Your task to perform on an android device: Do I have any events this weekend? Image 0: 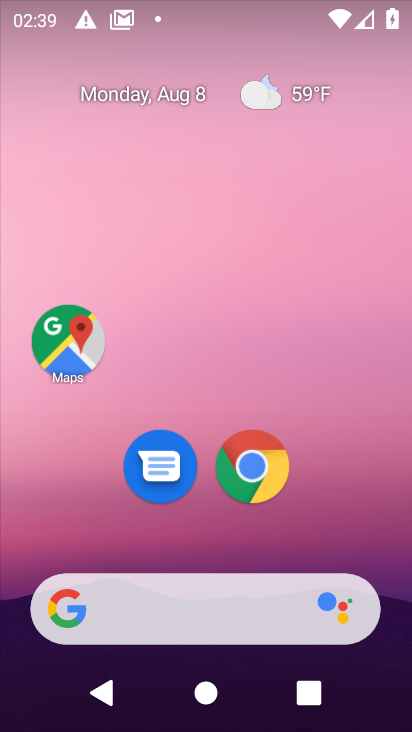
Step 0: drag from (223, 574) to (269, 157)
Your task to perform on an android device: Do I have any events this weekend? Image 1: 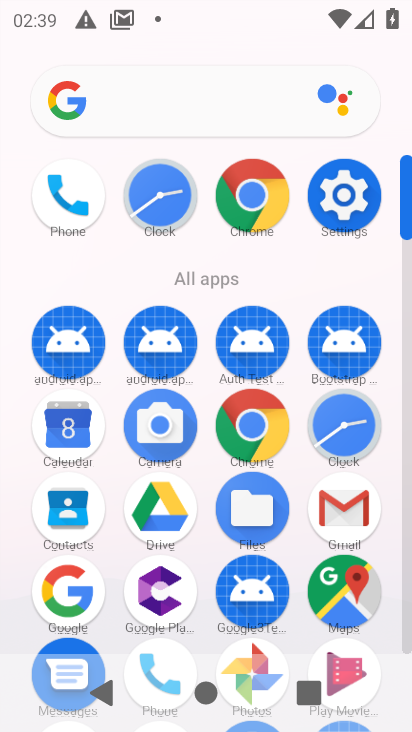
Step 1: click (57, 446)
Your task to perform on an android device: Do I have any events this weekend? Image 2: 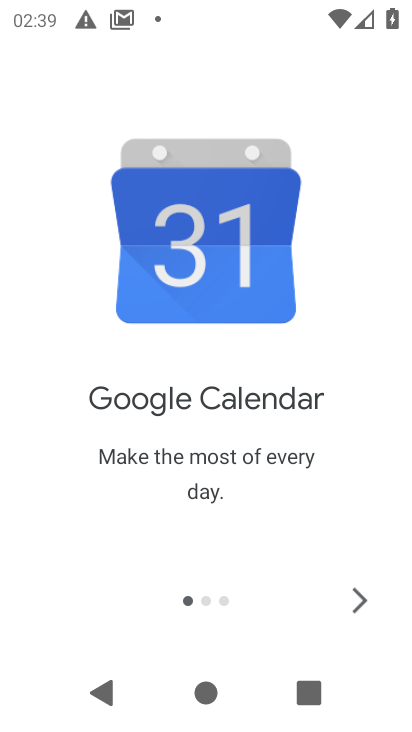
Step 2: click (368, 603)
Your task to perform on an android device: Do I have any events this weekend? Image 3: 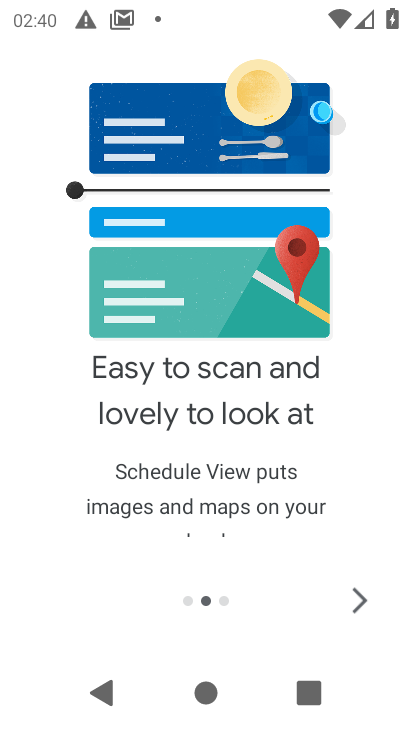
Step 3: click (368, 603)
Your task to perform on an android device: Do I have any events this weekend? Image 4: 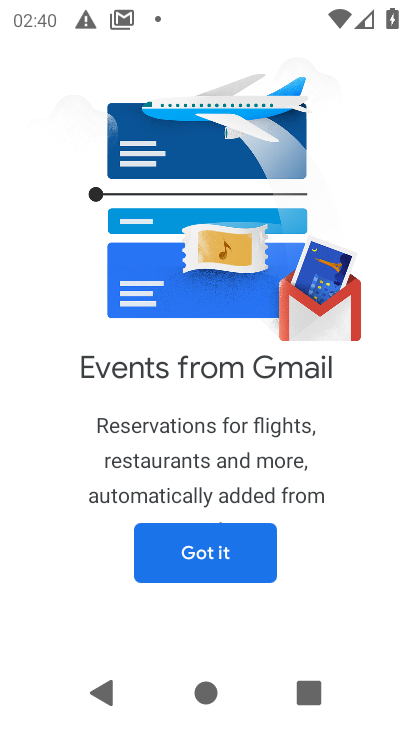
Step 4: click (183, 571)
Your task to perform on an android device: Do I have any events this weekend? Image 5: 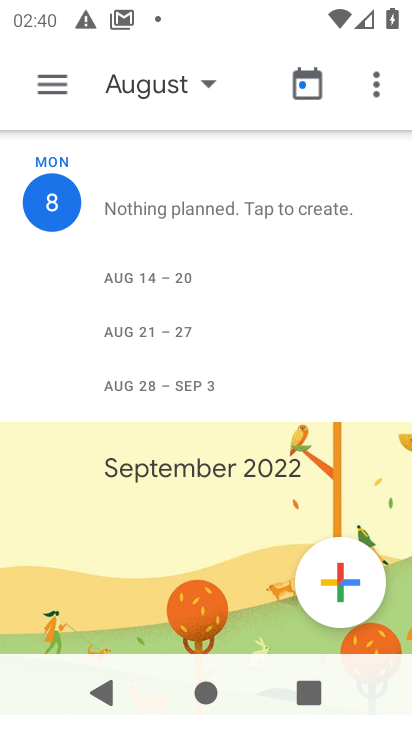
Step 5: click (50, 92)
Your task to perform on an android device: Do I have any events this weekend? Image 6: 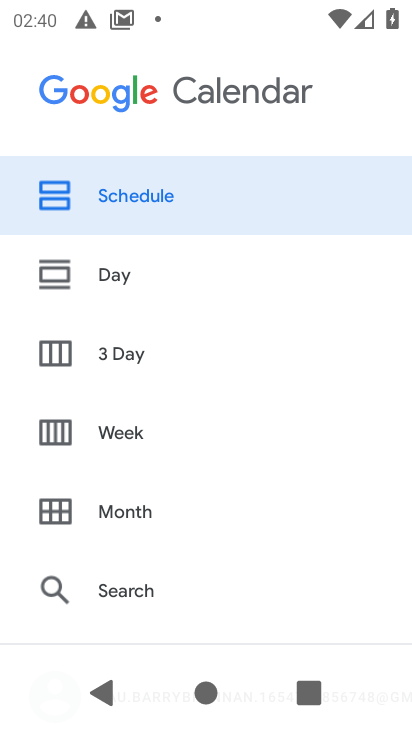
Step 6: click (143, 444)
Your task to perform on an android device: Do I have any events this weekend? Image 7: 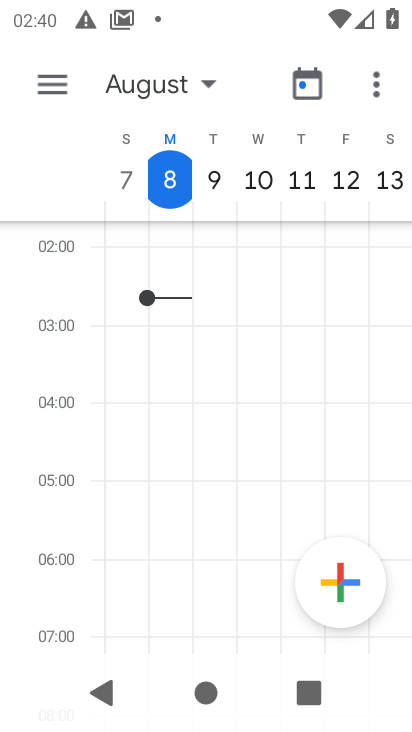
Step 7: task complete